Your task to perform on an android device: turn off sleep mode Image 0: 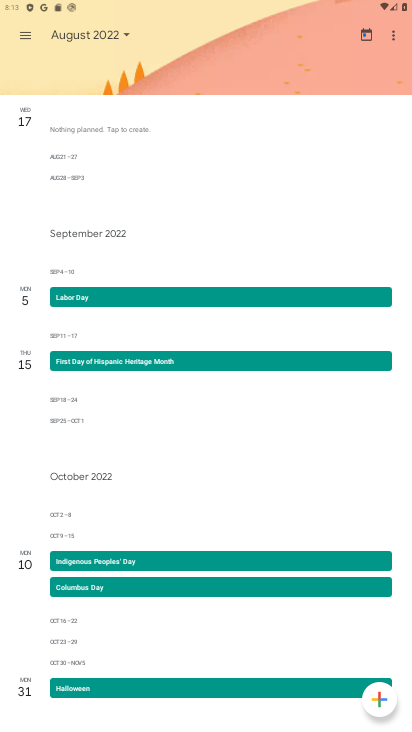
Step 0: press home button
Your task to perform on an android device: turn off sleep mode Image 1: 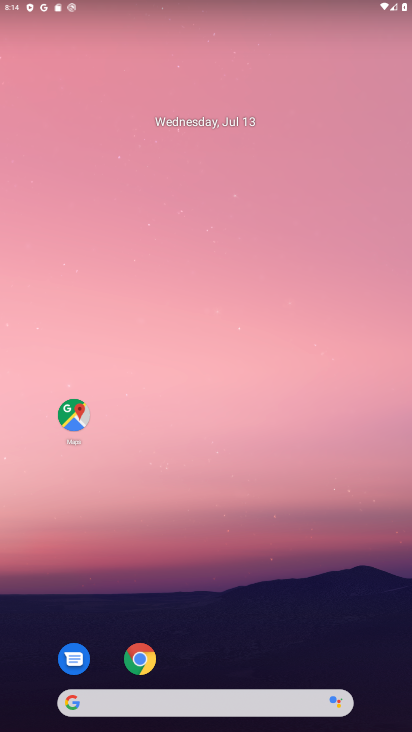
Step 1: drag from (277, 655) to (345, 125)
Your task to perform on an android device: turn off sleep mode Image 2: 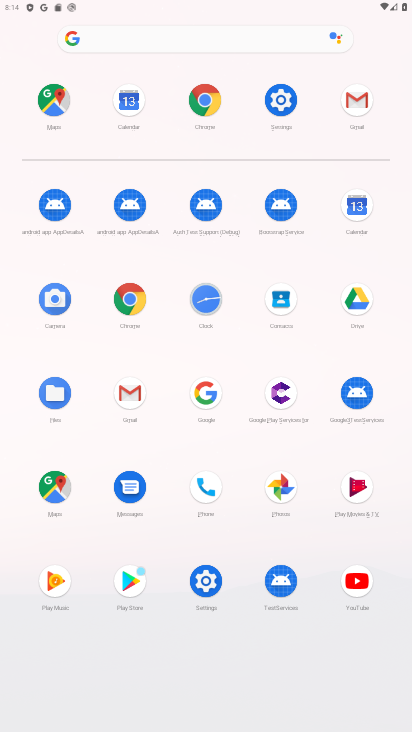
Step 2: click (281, 118)
Your task to perform on an android device: turn off sleep mode Image 3: 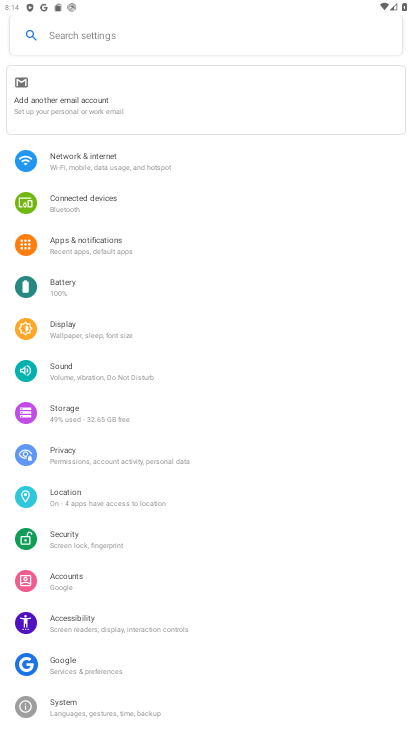
Step 3: click (78, 330)
Your task to perform on an android device: turn off sleep mode Image 4: 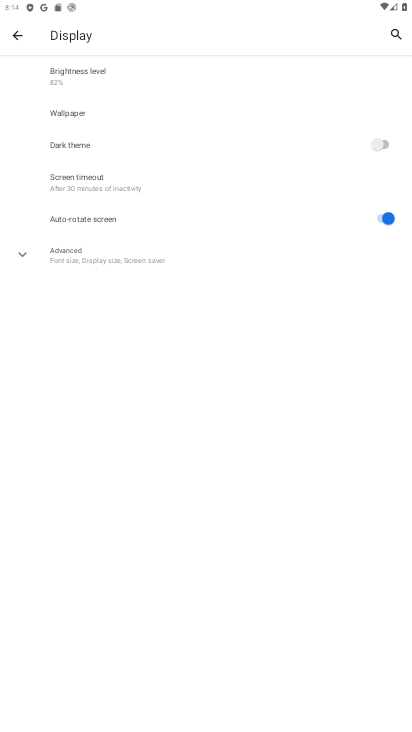
Step 4: click (275, 241)
Your task to perform on an android device: turn off sleep mode Image 5: 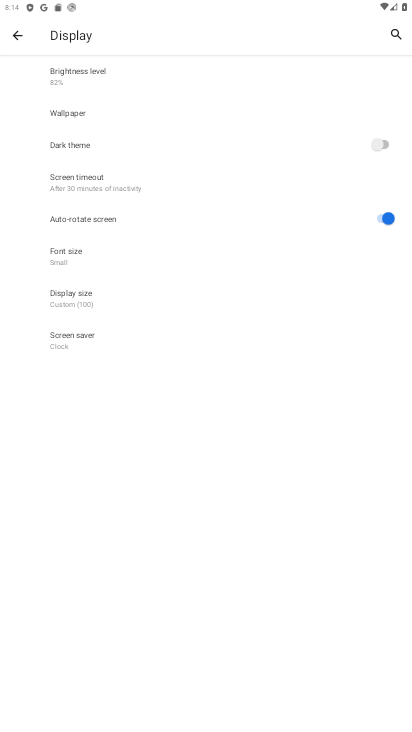
Step 5: click (269, 187)
Your task to perform on an android device: turn off sleep mode Image 6: 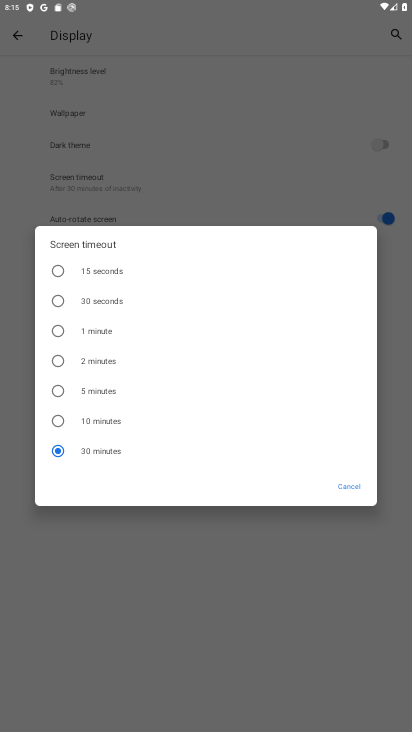
Step 6: click (212, 278)
Your task to perform on an android device: turn off sleep mode Image 7: 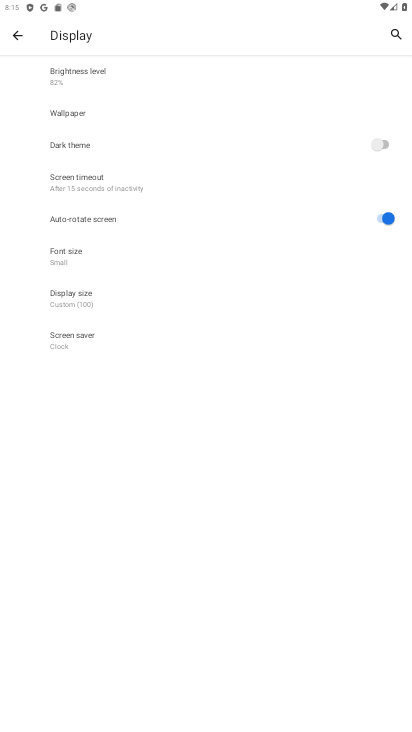
Step 7: click (221, 280)
Your task to perform on an android device: turn off sleep mode Image 8: 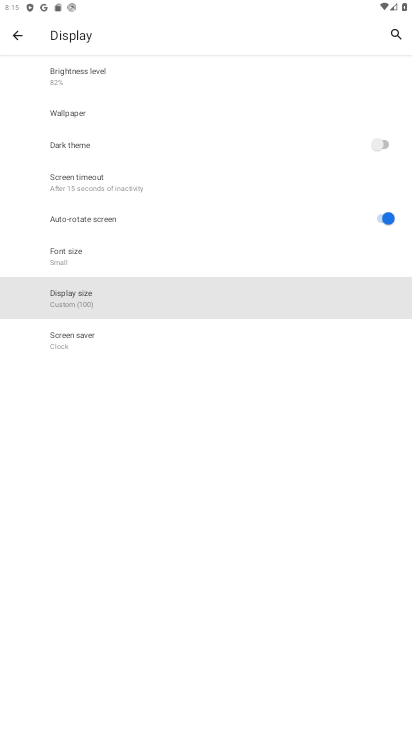
Step 8: click (188, 297)
Your task to perform on an android device: turn off sleep mode Image 9: 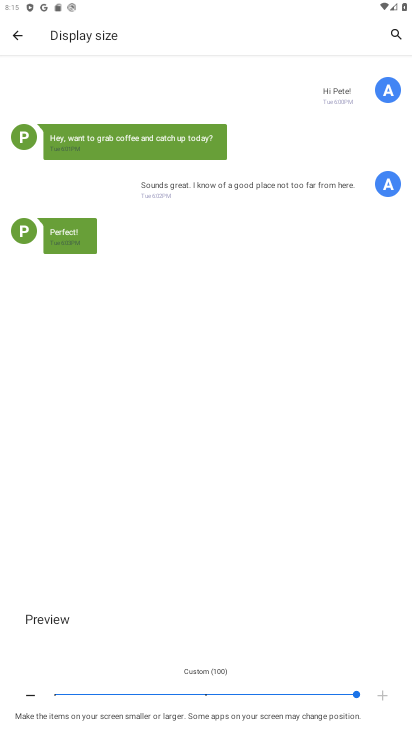
Step 9: click (18, 35)
Your task to perform on an android device: turn off sleep mode Image 10: 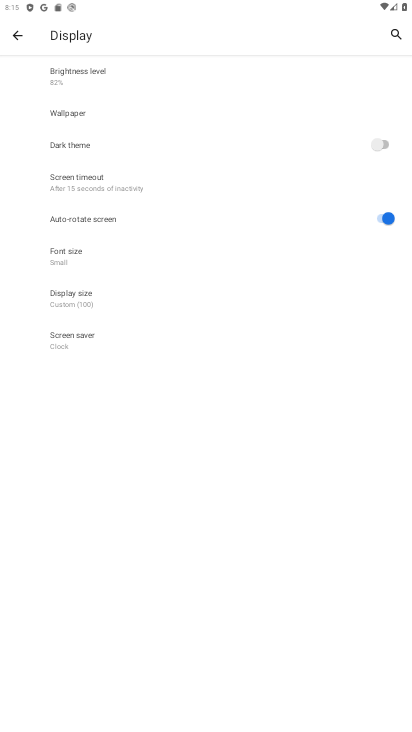
Step 10: click (115, 332)
Your task to perform on an android device: turn off sleep mode Image 11: 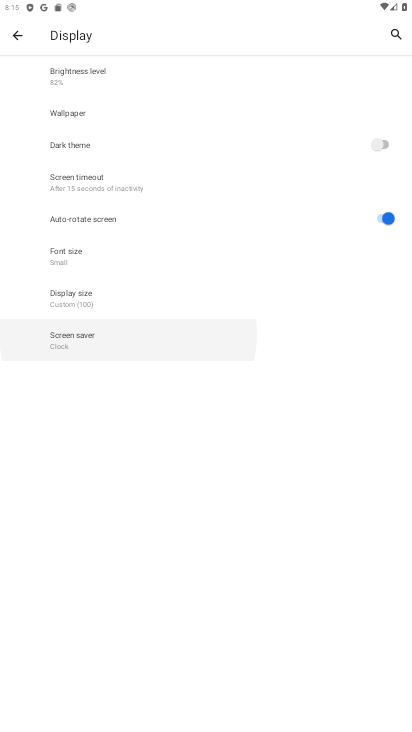
Step 11: drag from (115, 332) to (97, 422)
Your task to perform on an android device: turn off sleep mode Image 12: 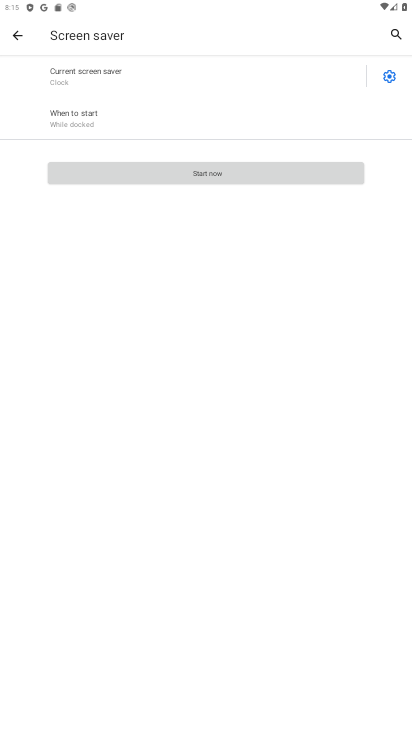
Step 12: click (23, 32)
Your task to perform on an android device: turn off sleep mode Image 13: 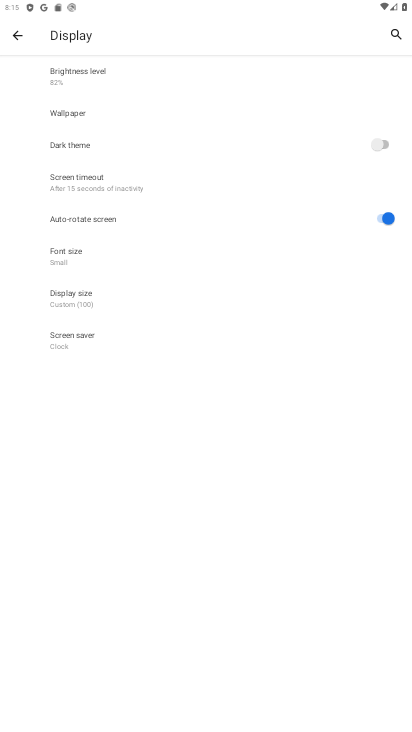
Step 13: click (138, 258)
Your task to perform on an android device: turn off sleep mode Image 14: 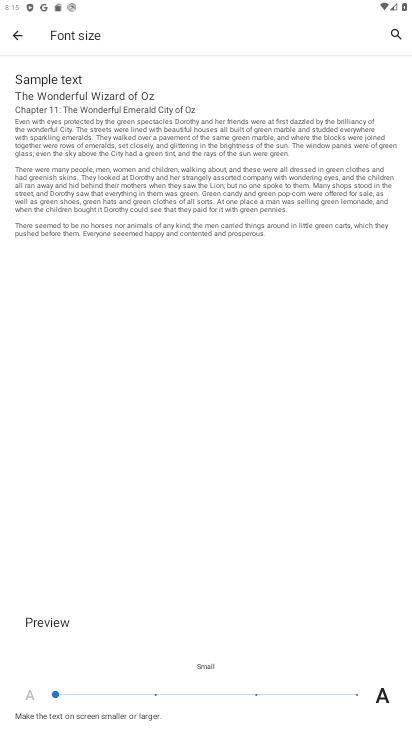
Step 14: click (361, 691)
Your task to perform on an android device: turn off sleep mode Image 15: 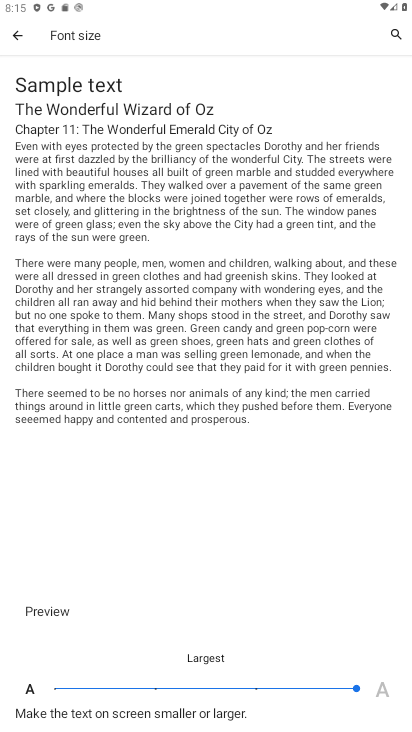
Step 15: task complete